Your task to perform on an android device: Is it going to rain today? Image 0: 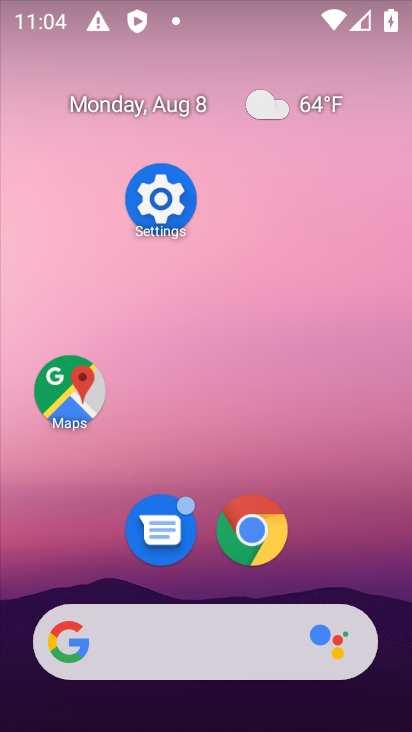
Step 0: drag from (224, 699) to (125, 245)
Your task to perform on an android device: Is it going to rain today? Image 1: 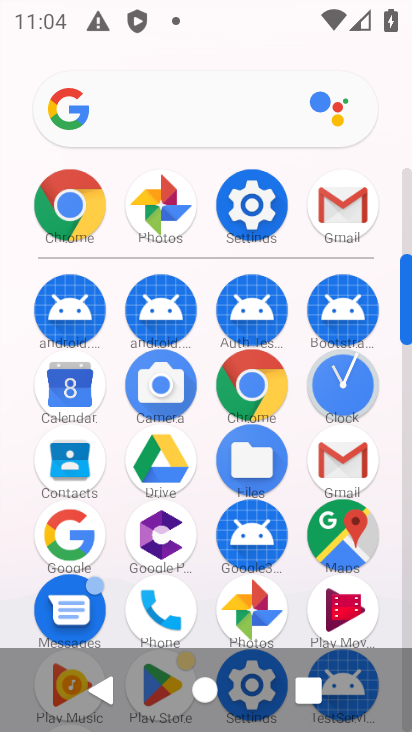
Step 1: drag from (176, 653) to (125, 192)
Your task to perform on an android device: Is it going to rain today? Image 2: 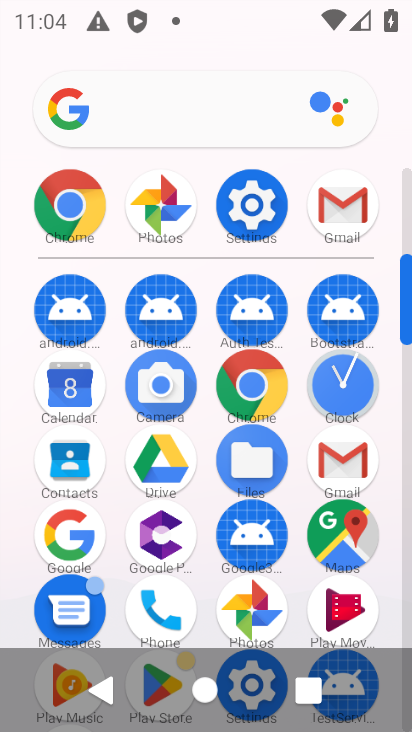
Step 2: click (61, 188)
Your task to perform on an android device: Is it going to rain today? Image 3: 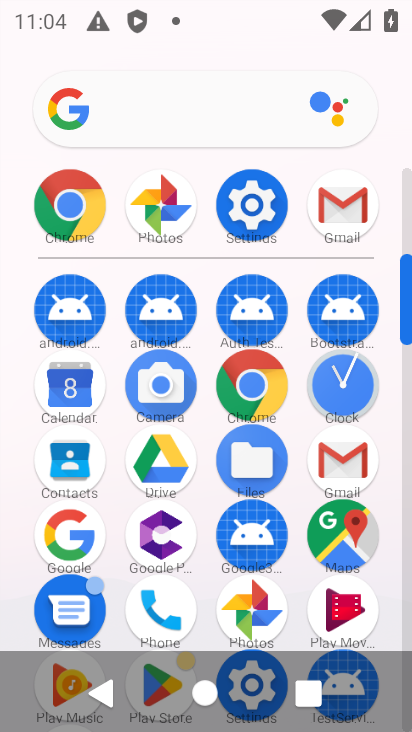
Step 3: click (74, 204)
Your task to perform on an android device: Is it going to rain today? Image 4: 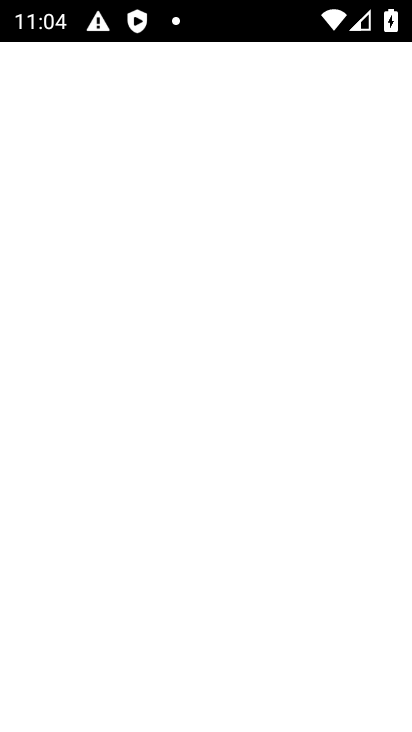
Step 4: click (75, 206)
Your task to perform on an android device: Is it going to rain today? Image 5: 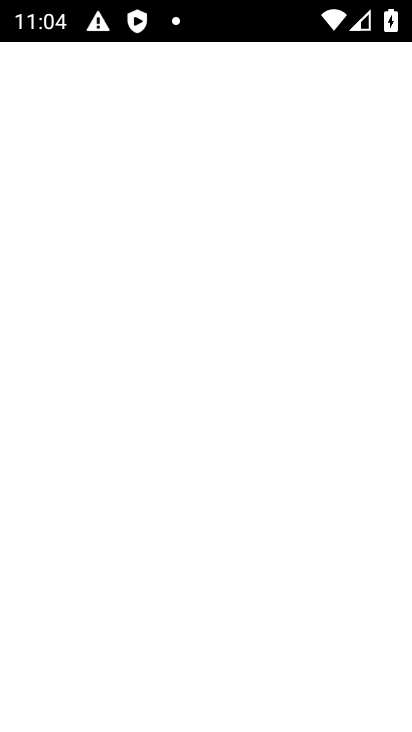
Step 5: click (76, 205)
Your task to perform on an android device: Is it going to rain today? Image 6: 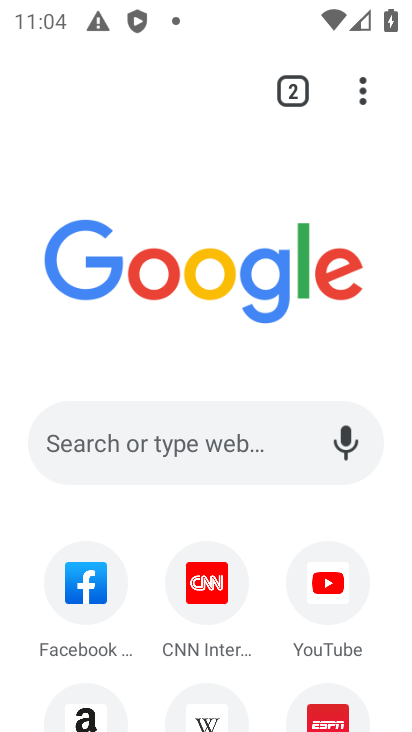
Step 6: click (120, 444)
Your task to perform on an android device: Is it going to rain today? Image 7: 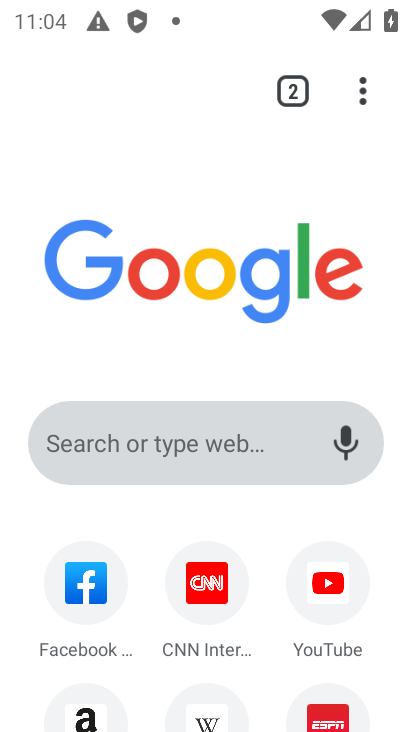
Step 7: click (120, 444)
Your task to perform on an android device: Is it going to rain today? Image 8: 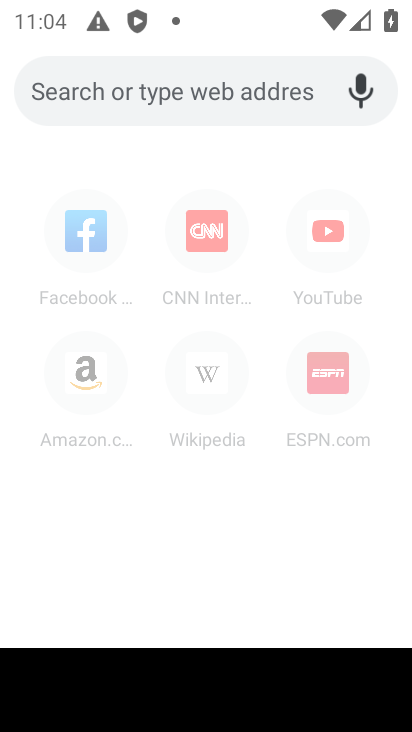
Step 8: click (31, 108)
Your task to perform on an android device: Is it going to rain today? Image 9: 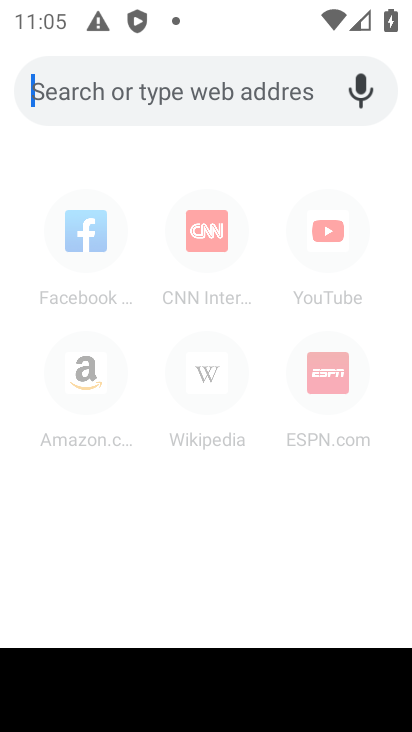
Step 9: type "is it going to rain today?"
Your task to perform on an android device: Is it going to rain today? Image 10: 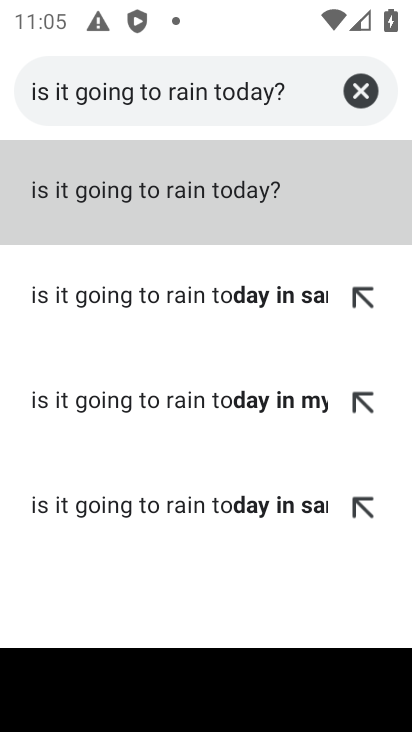
Step 10: click (152, 185)
Your task to perform on an android device: Is it going to rain today? Image 11: 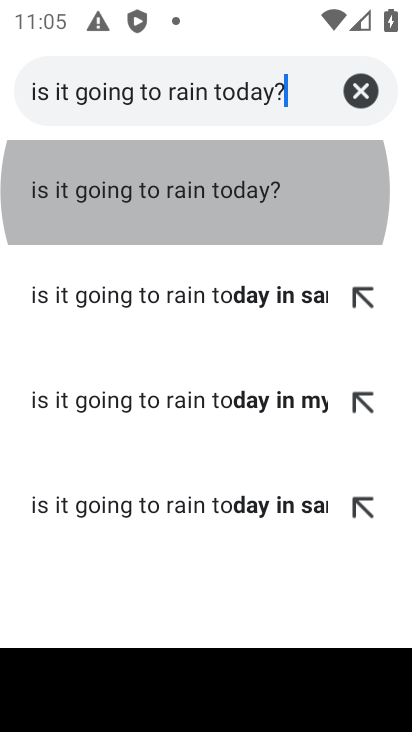
Step 11: click (151, 185)
Your task to perform on an android device: Is it going to rain today? Image 12: 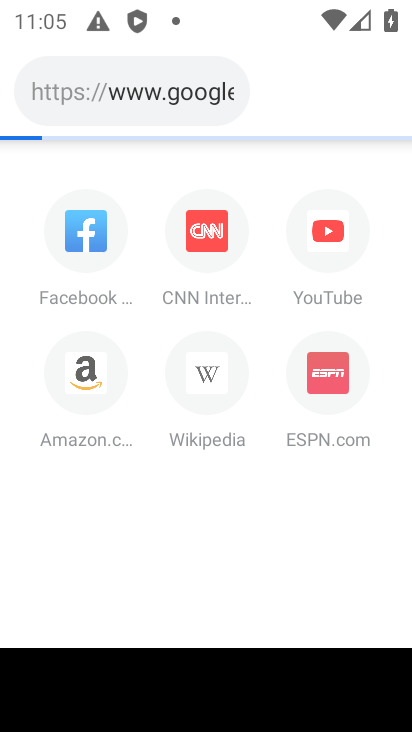
Step 12: click (154, 185)
Your task to perform on an android device: Is it going to rain today? Image 13: 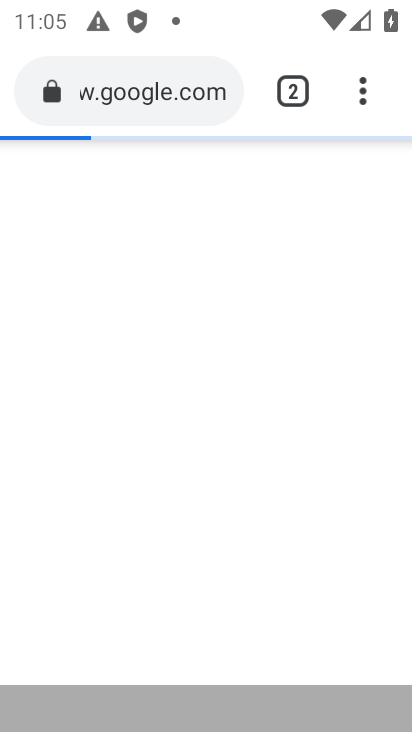
Step 13: click (155, 186)
Your task to perform on an android device: Is it going to rain today? Image 14: 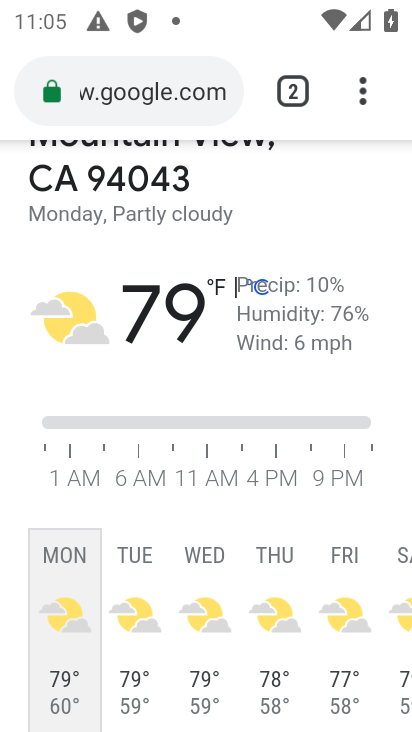
Step 14: task complete